Your task to perform on an android device: turn smart compose on in the gmail app Image 0: 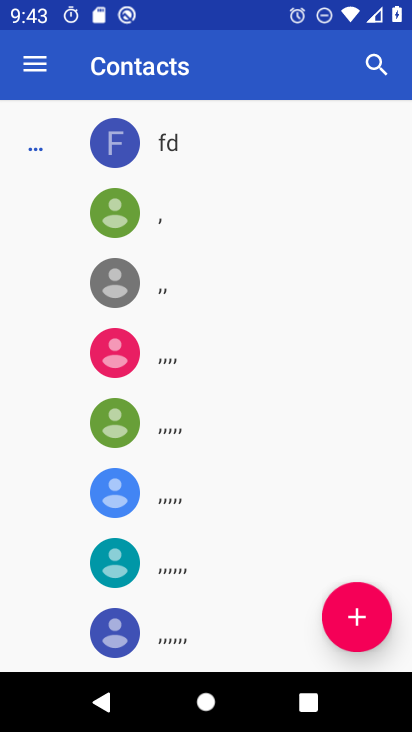
Step 0: press home button
Your task to perform on an android device: turn smart compose on in the gmail app Image 1: 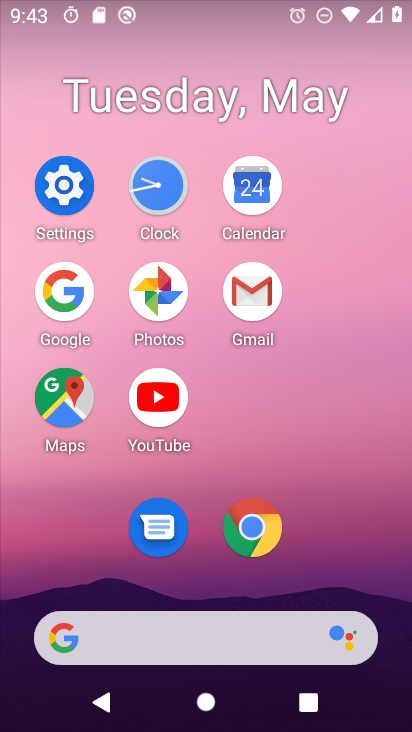
Step 1: click (257, 307)
Your task to perform on an android device: turn smart compose on in the gmail app Image 2: 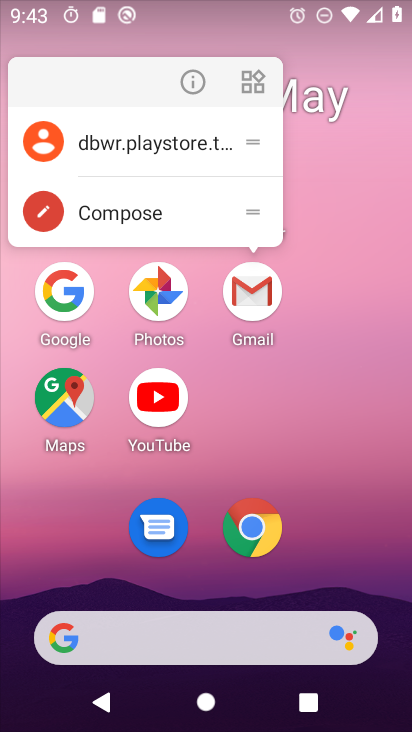
Step 2: click (272, 319)
Your task to perform on an android device: turn smart compose on in the gmail app Image 3: 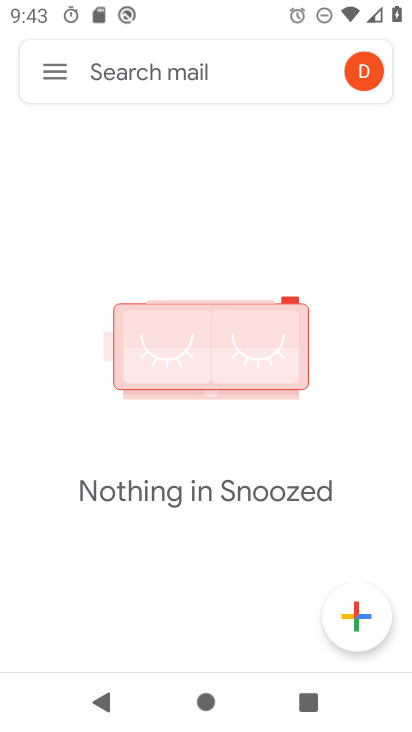
Step 3: click (39, 72)
Your task to perform on an android device: turn smart compose on in the gmail app Image 4: 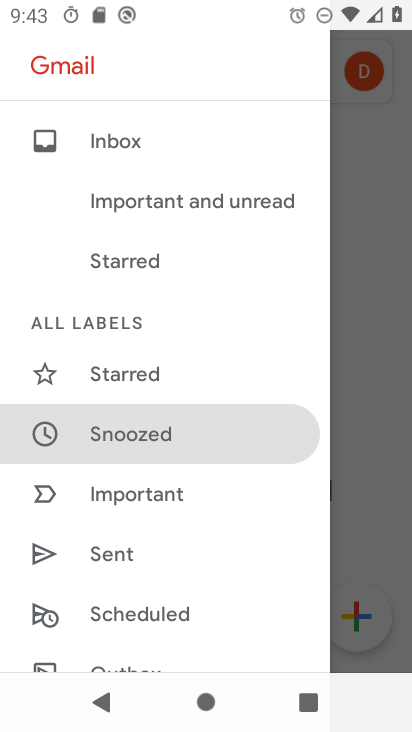
Step 4: drag from (217, 609) to (227, 229)
Your task to perform on an android device: turn smart compose on in the gmail app Image 5: 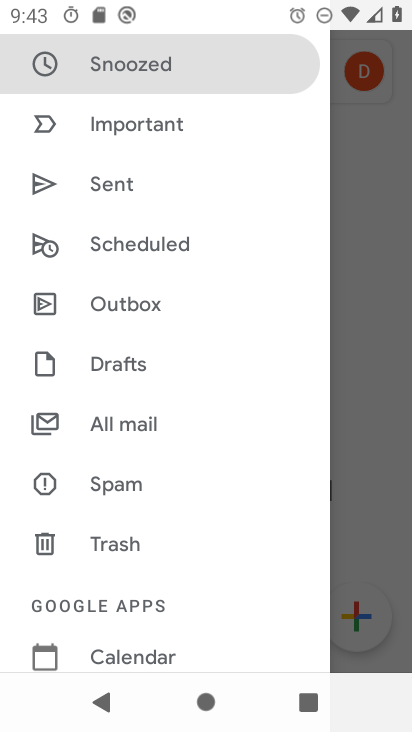
Step 5: drag from (141, 607) to (189, 277)
Your task to perform on an android device: turn smart compose on in the gmail app Image 6: 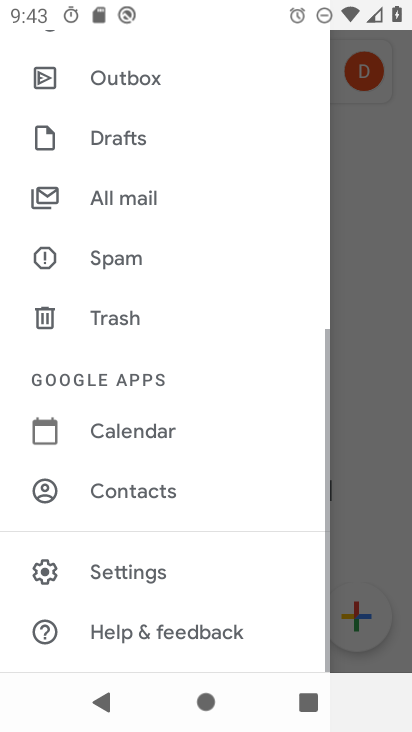
Step 6: click (121, 547)
Your task to perform on an android device: turn smart compose on in the gmail app Image 7: 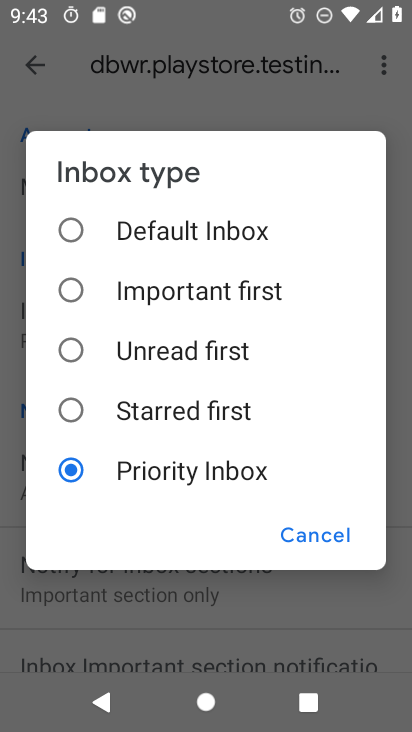
Step 7: click (51, 72)
Your task to perform on an android device: turn smart compose on in the gmail app Image 8: 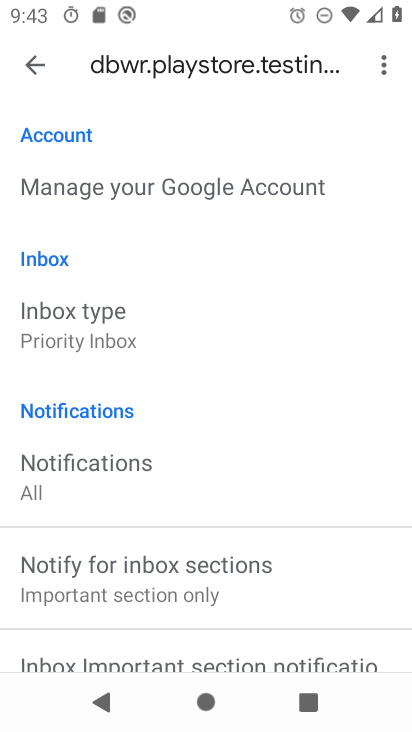
Step 8: task complete